Your task to perform on an android device: Go to display settings Image 0: 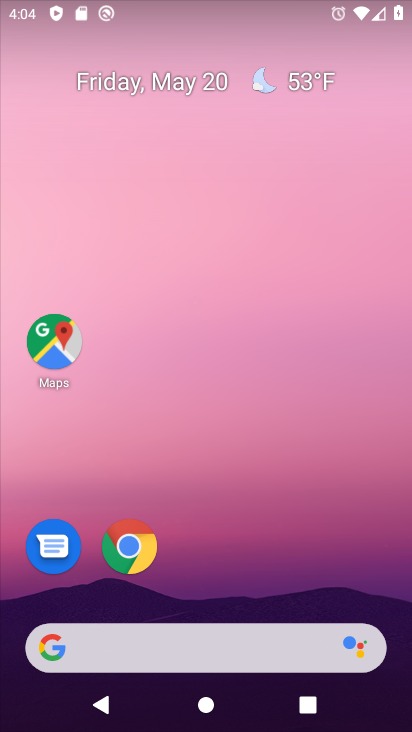
Step 0: drag from (317, 590) to (282, 152)
Your task to perform on an android device: Go to display settings Image 1: 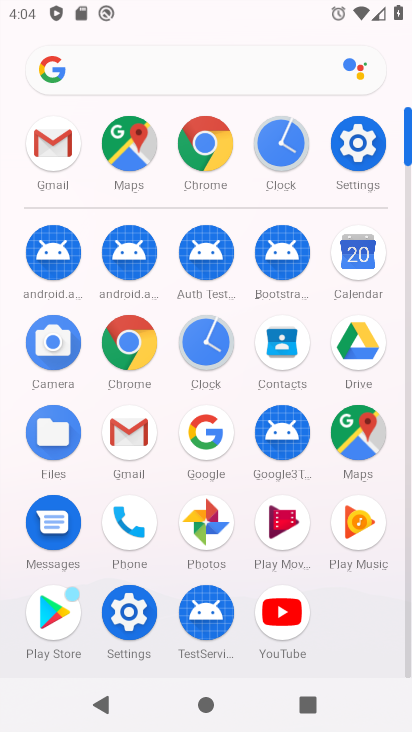
Step 1: click (359, 147)
Your task to perform on an android device: Go to display settings Image 2: 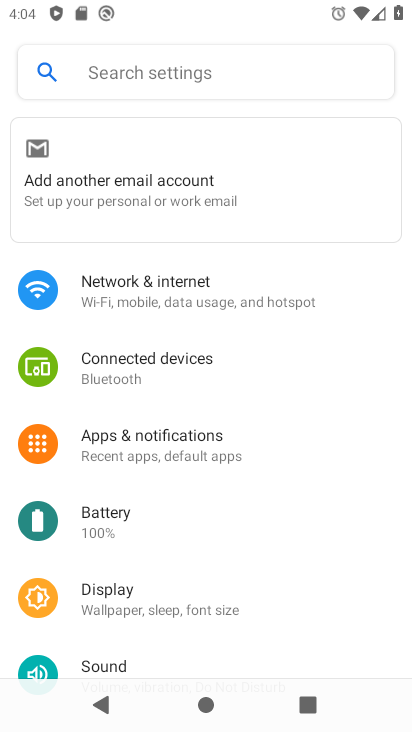
Step 2: drag from (131, 464) to (200, 218)
Your task to perform on an android device: Go to display settings Image 3: 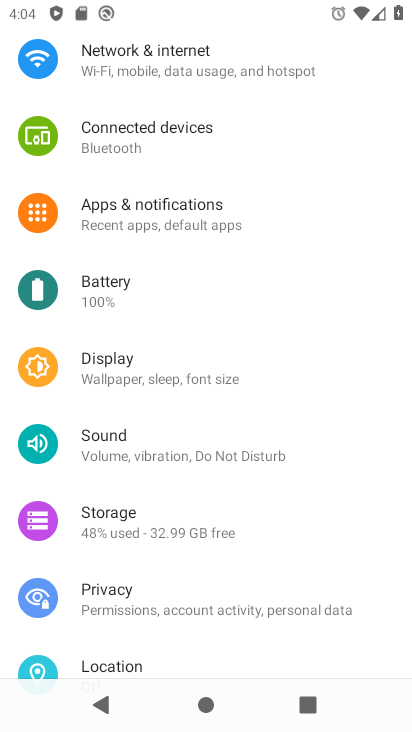
Step 3: click (120, 380)
Your task to perform on an android device: Go to display settings Image 4: 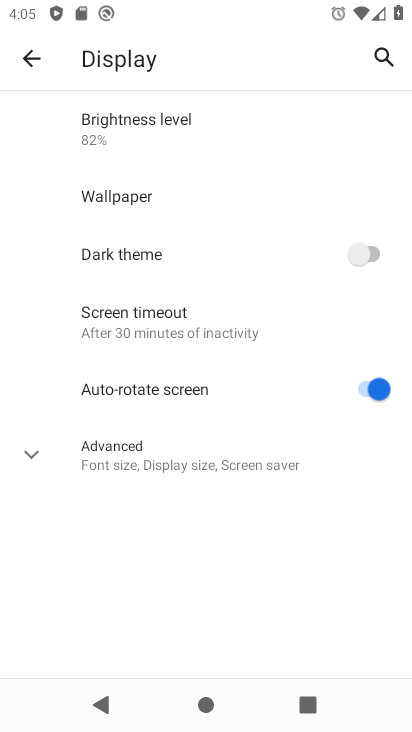
Step 4: task complete